Your task to perform on an android device: turn off translation in the chrome app Image 0: 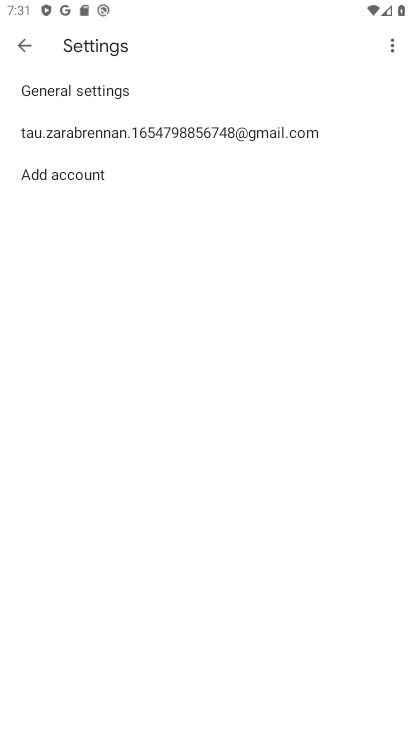
Step 0: press home button
Your task to perform on an android device: turn off translation in the chrome app Image 1: 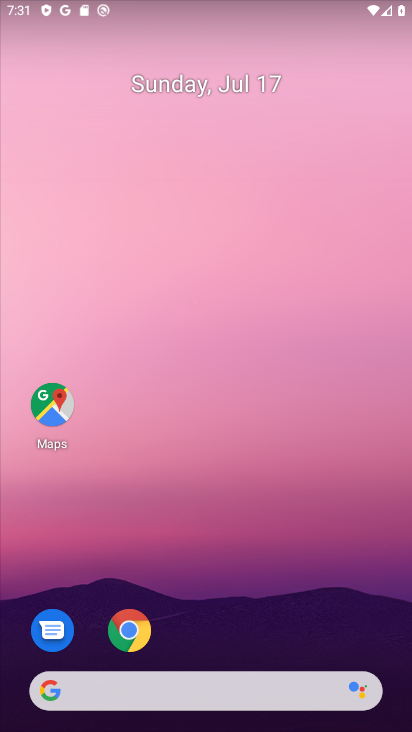
Step 1: click (119, 634)
Your task to perform on an android device: turn off translation in the chrome app Image 2: 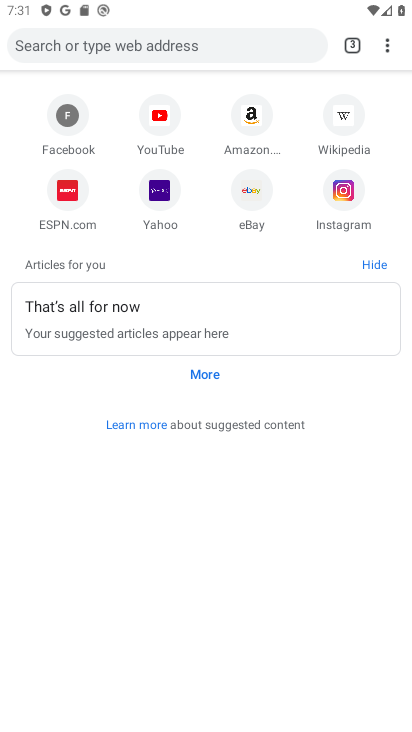
Step 2: click (390, 39)
Your task to perform on an android device: turn off translation in the chrome app Image 3: 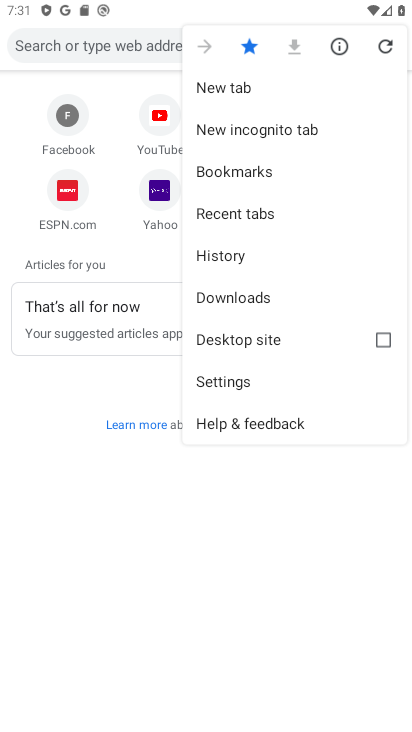
Step 3: click (228, 375)
Your task to perform on an android device: turn off translation in the chrome app Image 4: 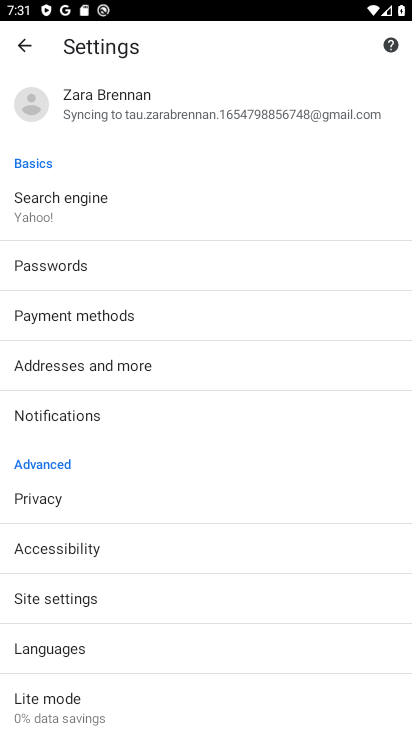
Step 4: click (55, 651)
Your task to perform on an android device: turn off translation in the chrome app Image 5: 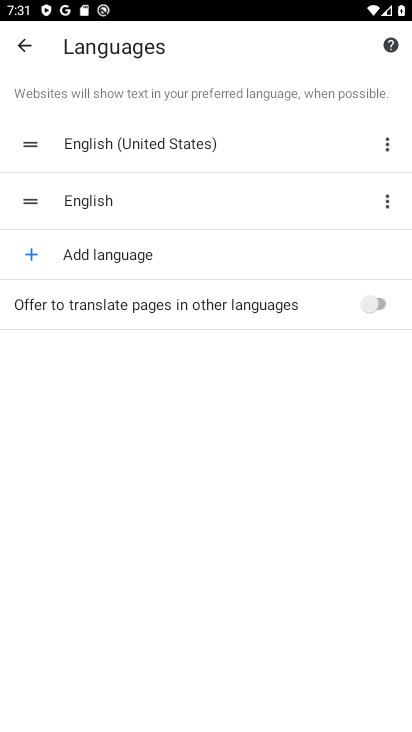
Step 5: task complete